Your task to perform on an android device: turn off location Image 0: 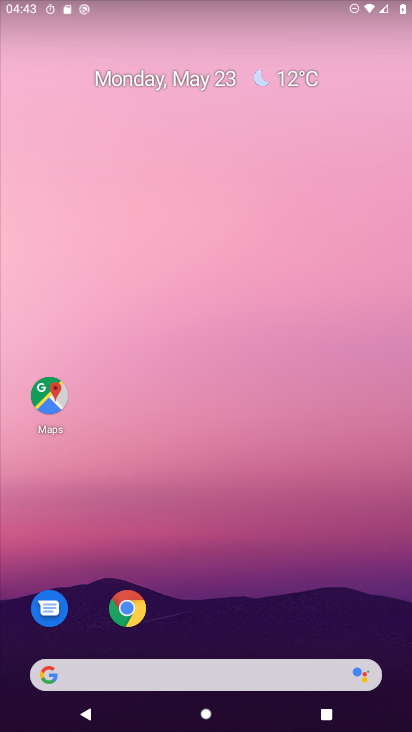
Step 0: drag from (313, 568) to (233, 131)
Your task to perform on an android device: turn off location Image 1: 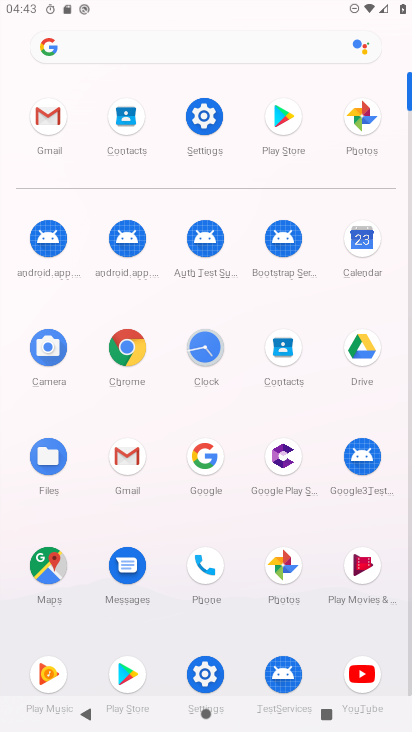
Step 1: click (199, 102)
Your task to perform on an android device: turn off location Image 2: 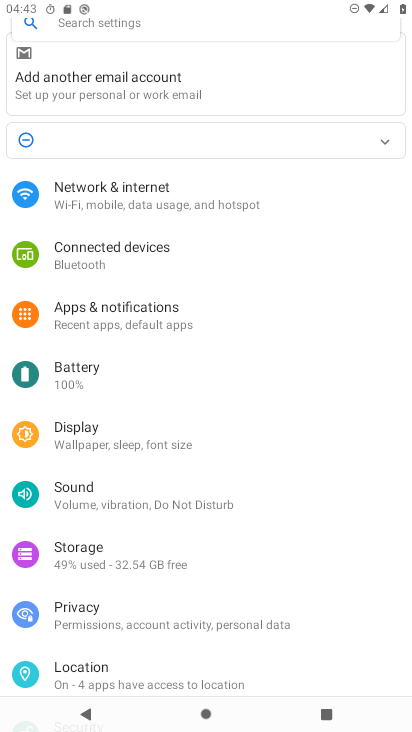
Step 2: click (203, 670)
Your task to perform on an android device: turn off location Image 3: 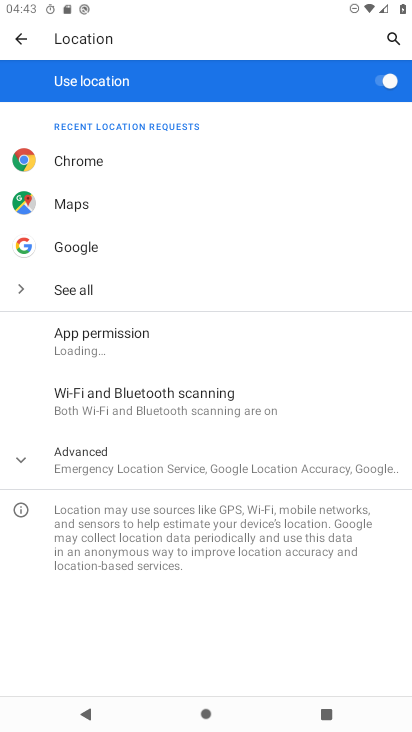
Step 3: click (383, 80)
Your task to perform on an android device: turn off location Image 4: 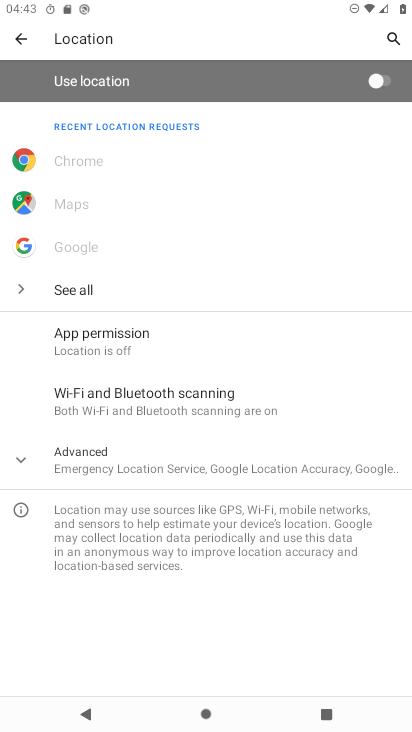
Step 4: task complete